Your task to perform on an android device: allow notifications from all sites in the chrome app Image 0: 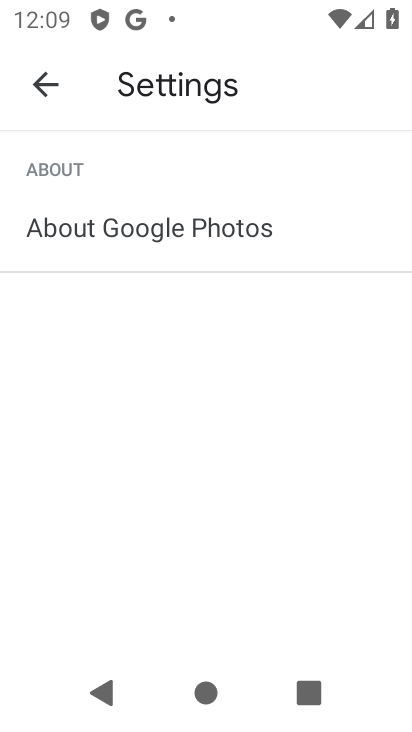
Step 0: press back button
Your task to perform on an android device: allow notifications from all sites in the chrome app Image 1: 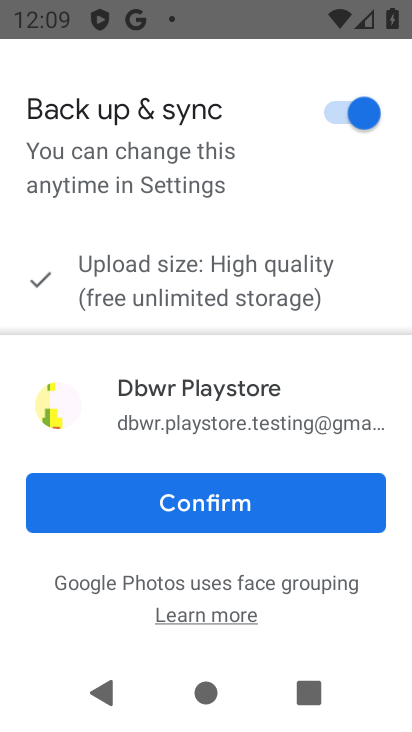
Step 1: press back button
Your task to perform on an android device: allow notifications from all sites in the chrome app Image 2: 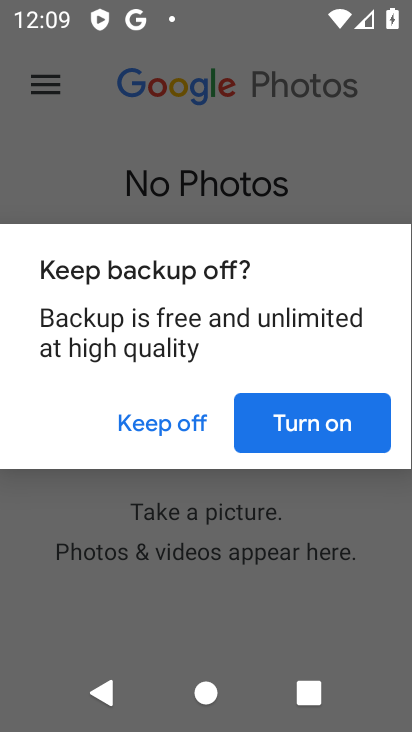
Step 2: press home button
Your task to perform on an android device: allow notifications from all sites in the chrome app Image 3: 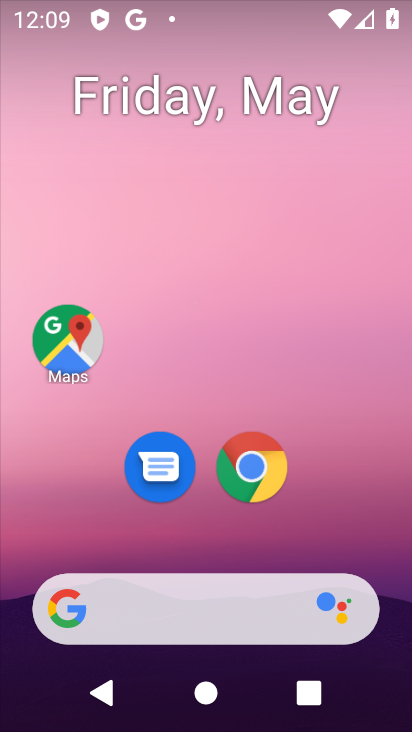
Step 3: click (255, 462)
Your task to perform on an android device: allow notifications from all sites in the chrome app Image 4: 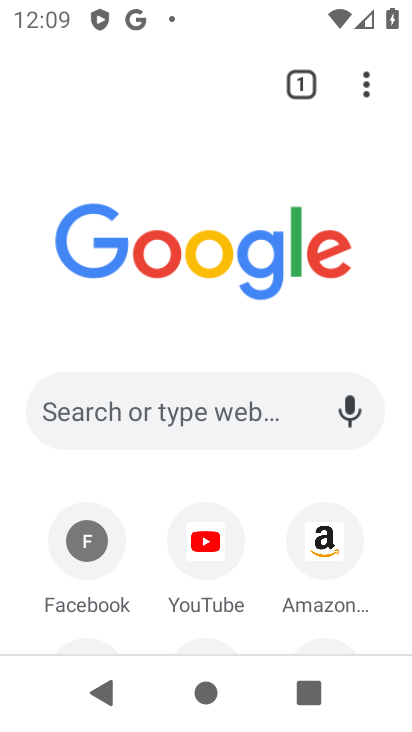
Step 4: click (366, 86)
Your task to perform on an android device: allow notifications from all sites in the chrome app Image 5: 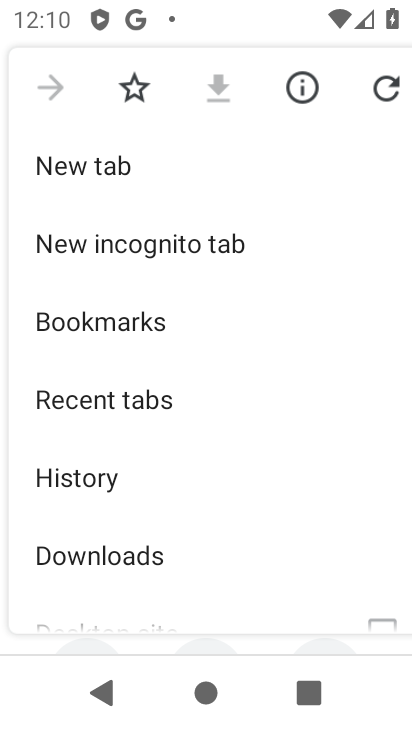
Step 5: drag from (162, 488) to (163, 373)
Your task to perform on an android device: allow notifications from all sites in the chrome app Image 6: 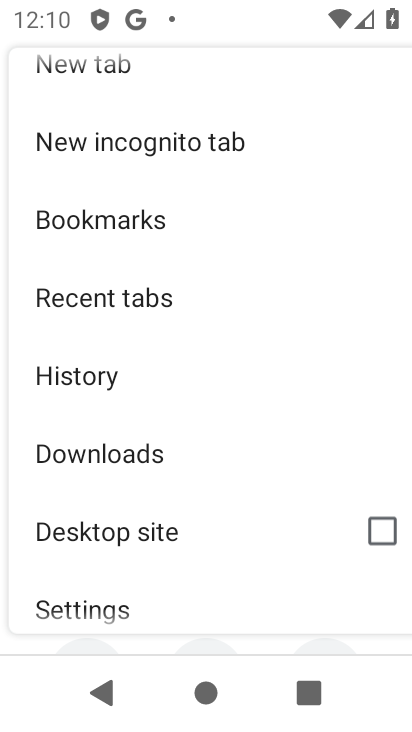
Step 6: drag from (136, 562) to (188, 463)
Your task to perform on an android device: allow notifications from all sites in the chrome app Image 7: 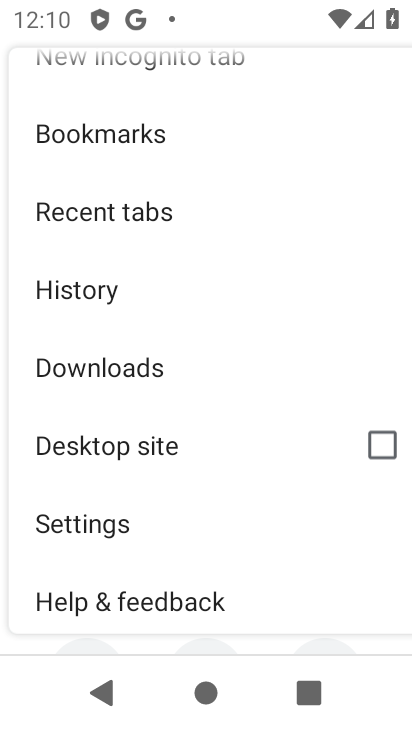
Step 7: click (110, 519)
Your task to perform on an android device: allow notifications from all sites in the chrome app Image 8: 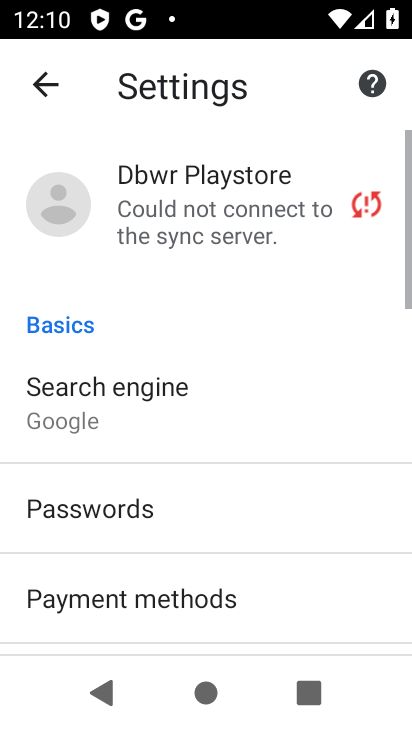
Step 8: drag from (194, 503) to (238, 297)
Your task to perform on an android device: allow notifications from all sites in the chrome app Image 9: 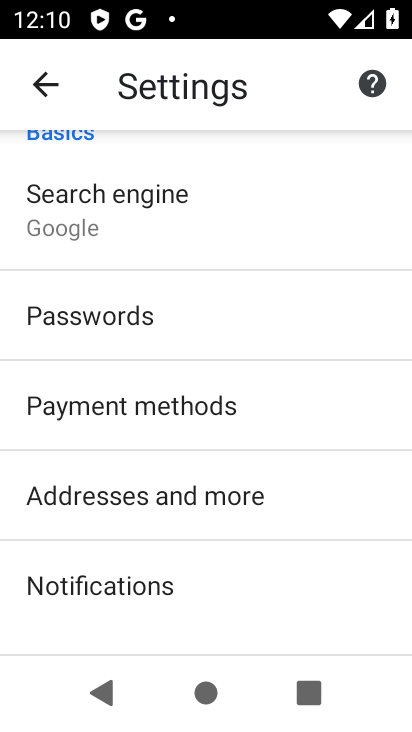
Step 9: drag from (184, 541) to (255, 331)
Your task to perform on an android device: allow notifications from all sites in the chrome app Image 10: 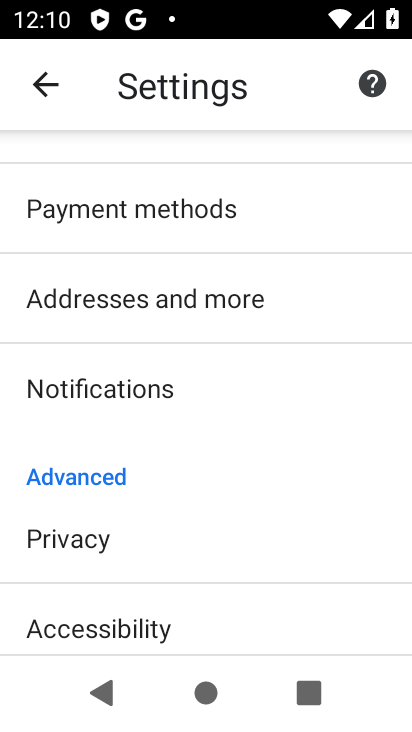
Step 10: drag from (171, 528) to (245, 348)
Your task to perform on an android device: allow notifications from all sites in the chrome app Image 11: 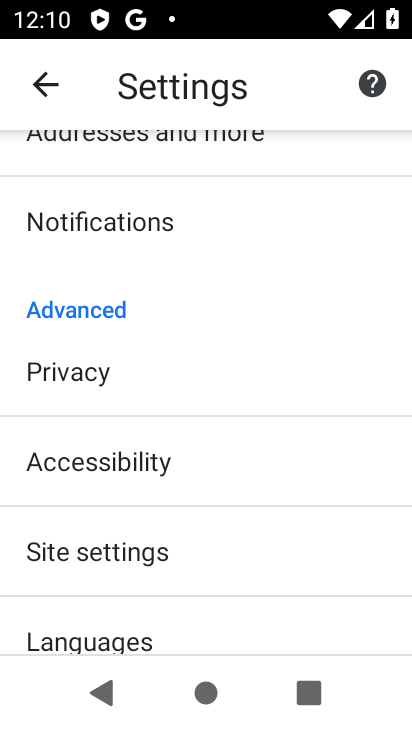
Step 11: drag from (182, 508) to (240, 366)
Your task to perform on an android device: allow notifications from all sites in the chrome app Image 12: 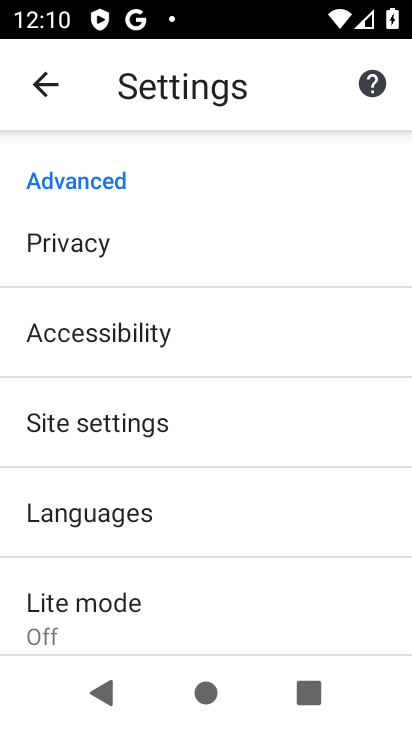
Step 12: click (149, 418)
Your task to perform on an android device: allow notifications from all sites in the chrome app Image 13: 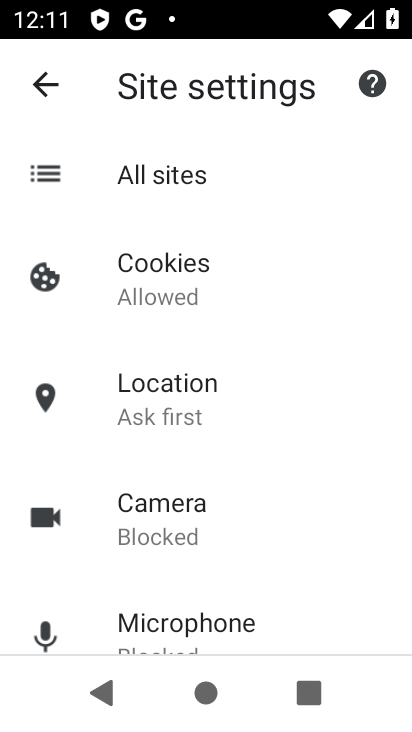
Step 13: drag from (222, 518) to (268, 391)
Your task to perform on an android device: allow notifications from all sites in the chrome app Image 14: 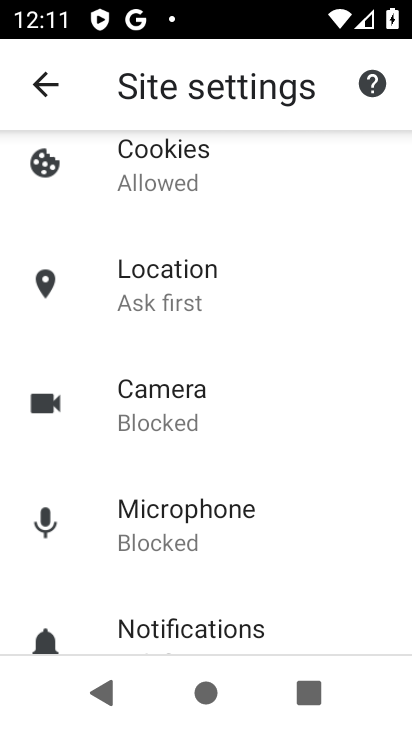
Step 14: drag from (215, 555) to (257, 403)
Your task to perform on an android device: allow notifications from all sites in the chrome app Image 15: 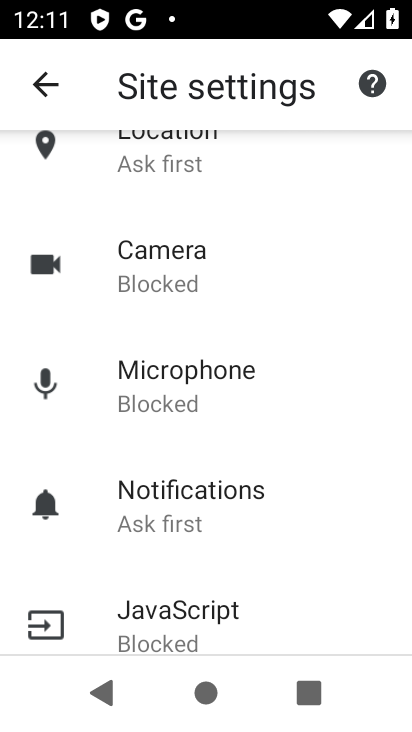
Step 15: click (211, 491)
Your task to perform on an android device: allow notifications from all sites in the chrome app Image 16: 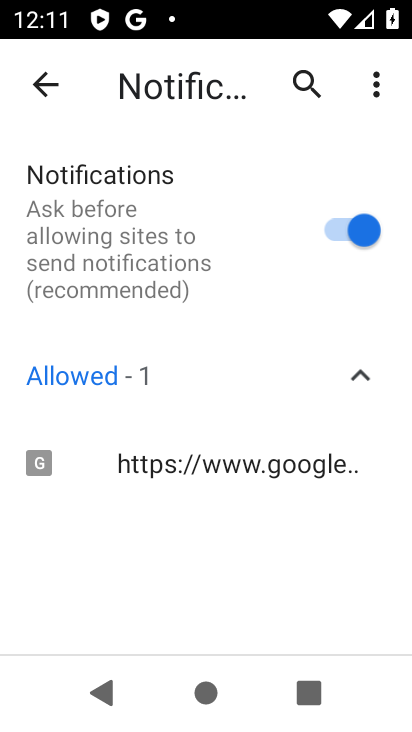
Step 16: task complete